Your task to perform on an android device: delete browsing data in the chrome app Image 0: 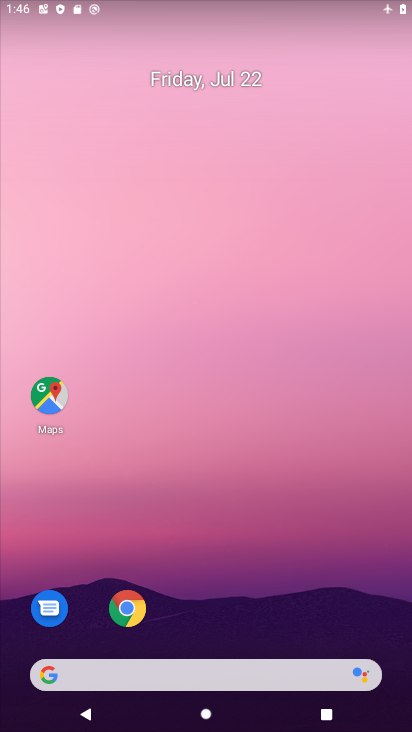
Step 0: click (124, 607)
Your task to perform on an android device: delete browsing data in the chrome app Image 1: 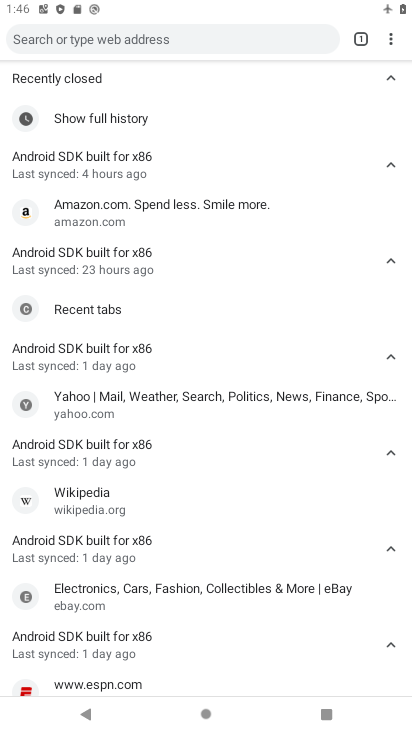
Step 1: click (390, 44)
Your task to perform on an android device: delete browsing data in the chrome app Image 2: 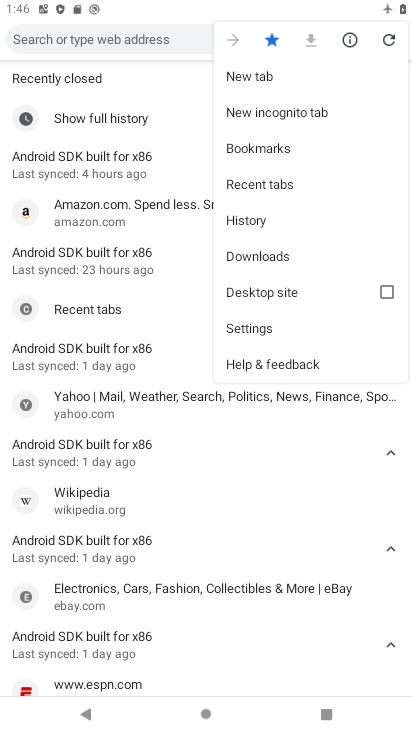
Step 2: click (242, 222)
Your task to perform on an android device: delete browsing data in the chrome app Image 3: 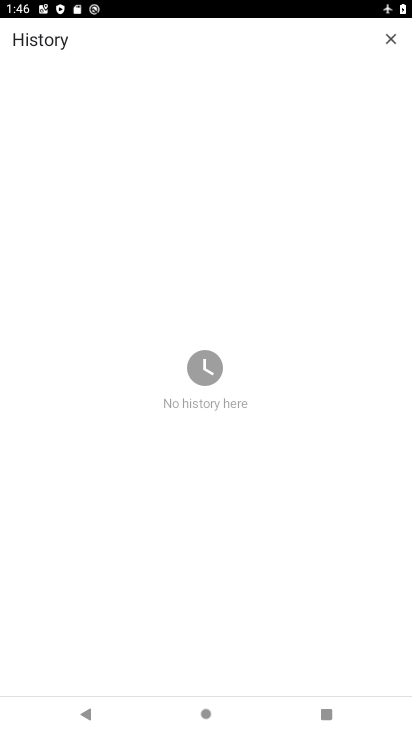
Step 3: task complete